Your task to perform on an android device: Clear the cart on ebay.com. Image 0: 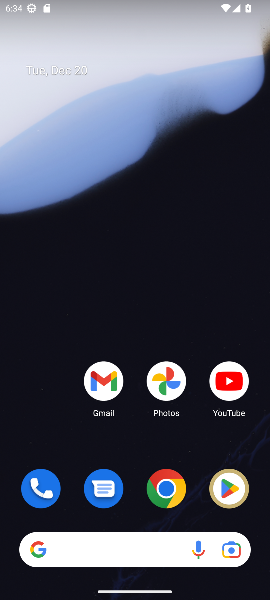
Step 0: press home button
Your task to perform on an android device: Clear the cart on ebay.com. Image 1: 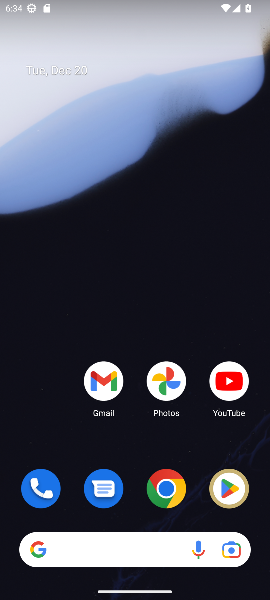
Step 1: drag from (66, 449) to (46, 33)
Your task to perform on an android device: Clear the cart on ebay.com. Image 2: 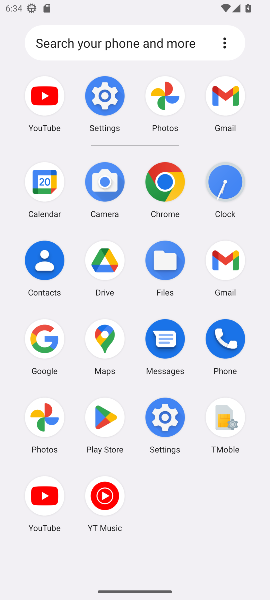
Step 2: click (42, 336)
Your task to perform on an android device: Clear the cart on ebay.com. Image 3: 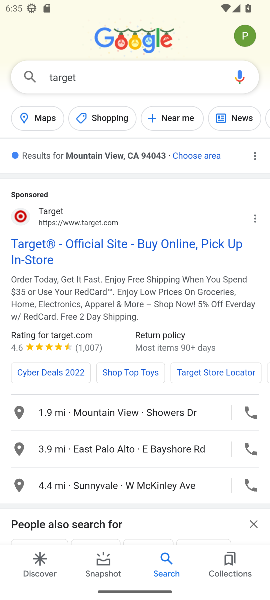
Step 3: click (101, 76)
Your task to perform on an android device: Clear the cart on ebay.com. Image 4: 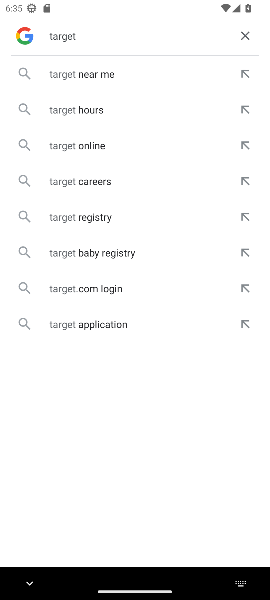
Step 4: click (241, 30)
Your task to perform on an android device: Clear the cart on ebay.com. Image 5: 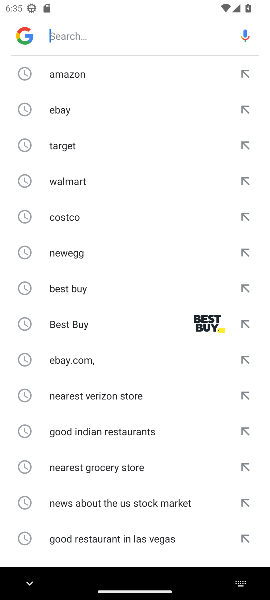
Step 5: type "ebay.com"
Your task to perform on an android device: Clear the cart on ebay.com. Image 6: 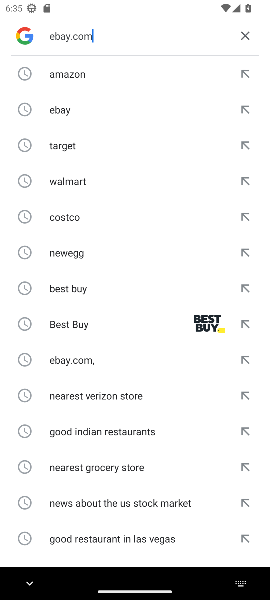
Step 6: press enter
Your task to perform on an android device: Clear the cart on ebay.com. Image 7: 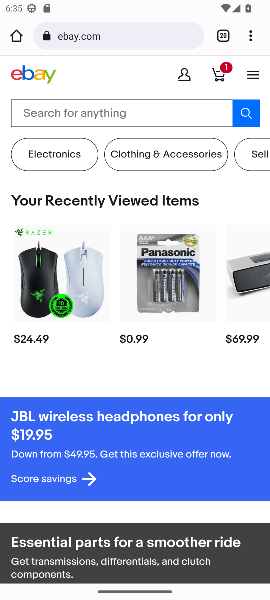
Step 7: click (215, 67)
Your task to perform on an android device: Clear the cart on ebay.com. Image 8: 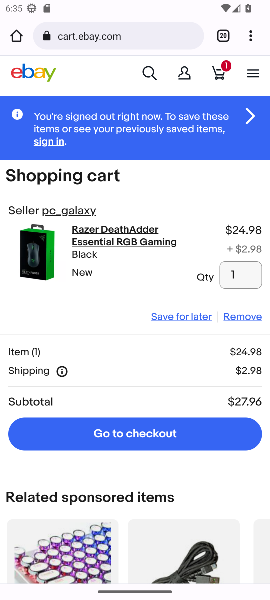
Step 8: click (238, 319)
Your task to perform on an android device: Clear the cart on ebay.com. Image 9: 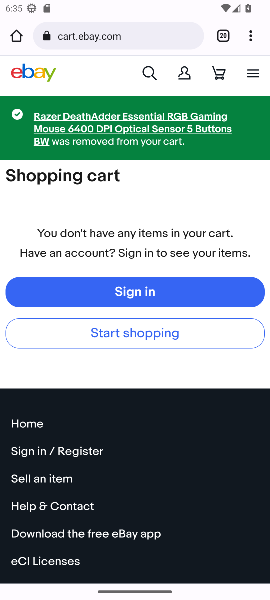
Step 9: task complete